Your task to perform on an android device: Search for Mexican restaurants on Maps Image 0: 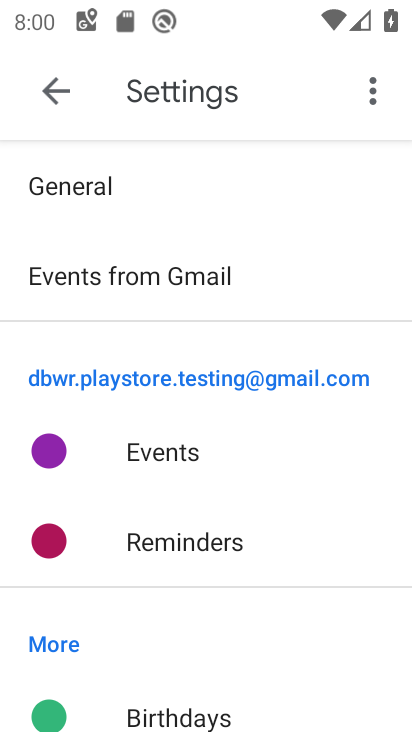
Step 0: press home button
Your task to perform on an android device: Search for Mexican restaurants on Maps Image 1: 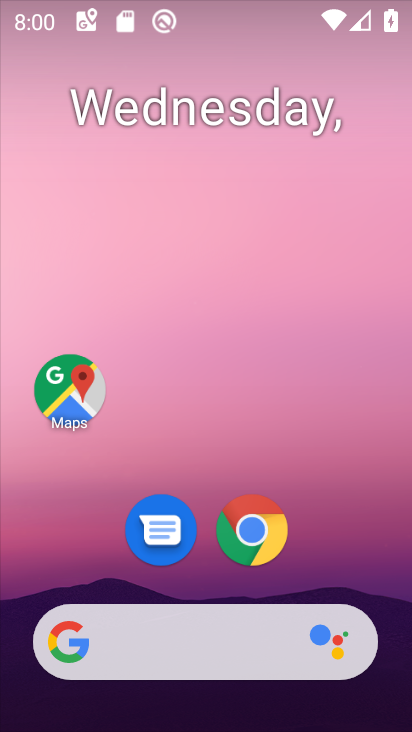
Step 1: drag from (396, 602) to (260, 106)
Your task to perform on an android device: Search for Mexican restaurants on Maps Image 2: 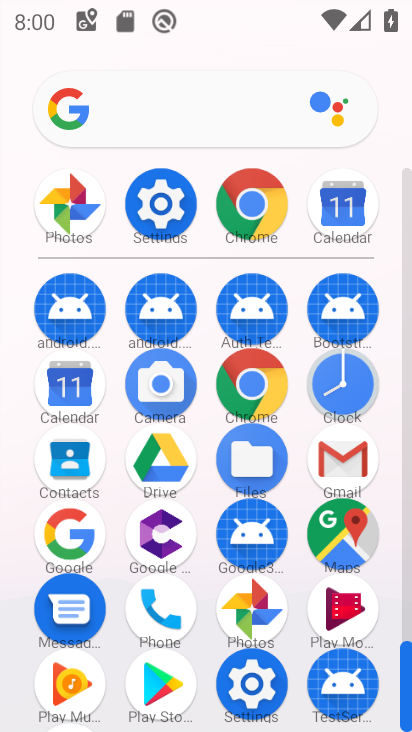
Step 2: click (331, 549)
Your task to perform on an android device: Search for Mexican restaurants on Maps Image 3: 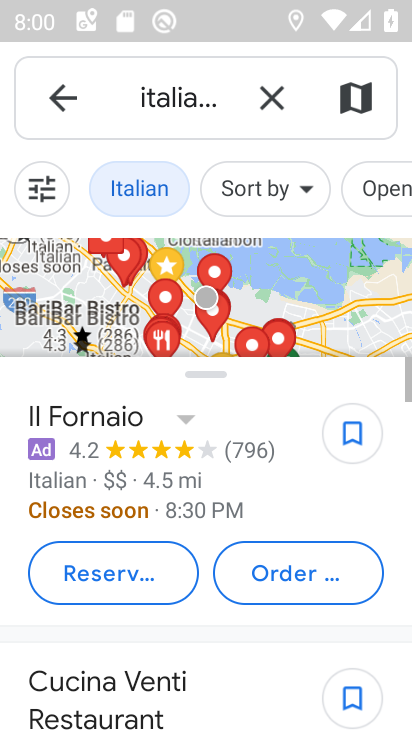
Step 3: click (261, 87)
Your task to perform on an android device: Search for Mexican restaurants on Maps Image 4: 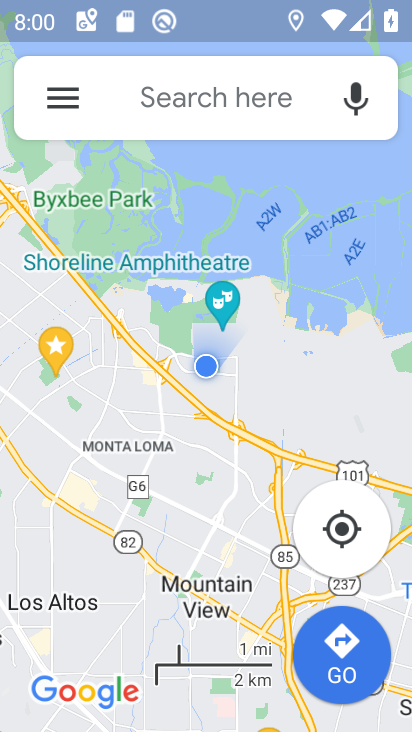
Step 4: click (159, 103)
Your task to perform on an android device: Search for Mexican restaurants on Maps Image 5: 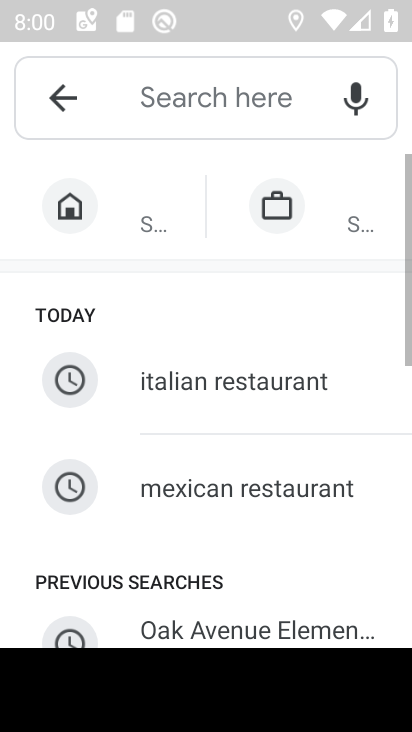
Step 5: click (256, 497)
Your task to perform on an android device: Search for Mexican restaurants on Maps Image 6: 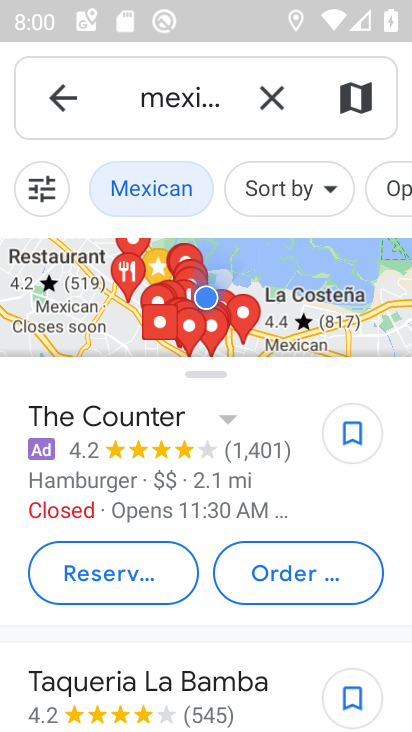
Step 6: task complete